Your task to perform on an android device: Open privacy settings Image 0: 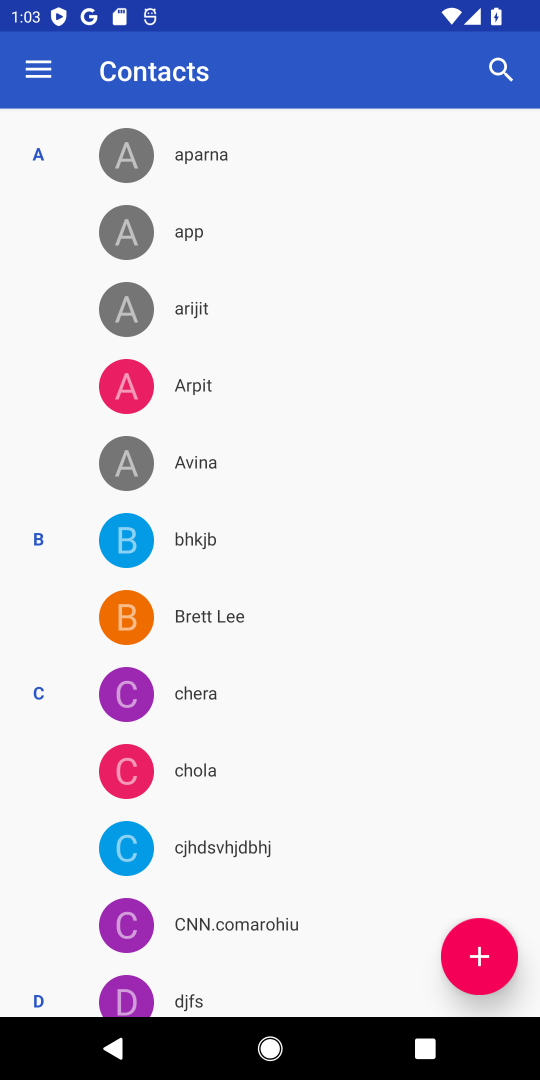
Step 0: press home button
Your task to perform on an android device: Open privacy settings Image 1: 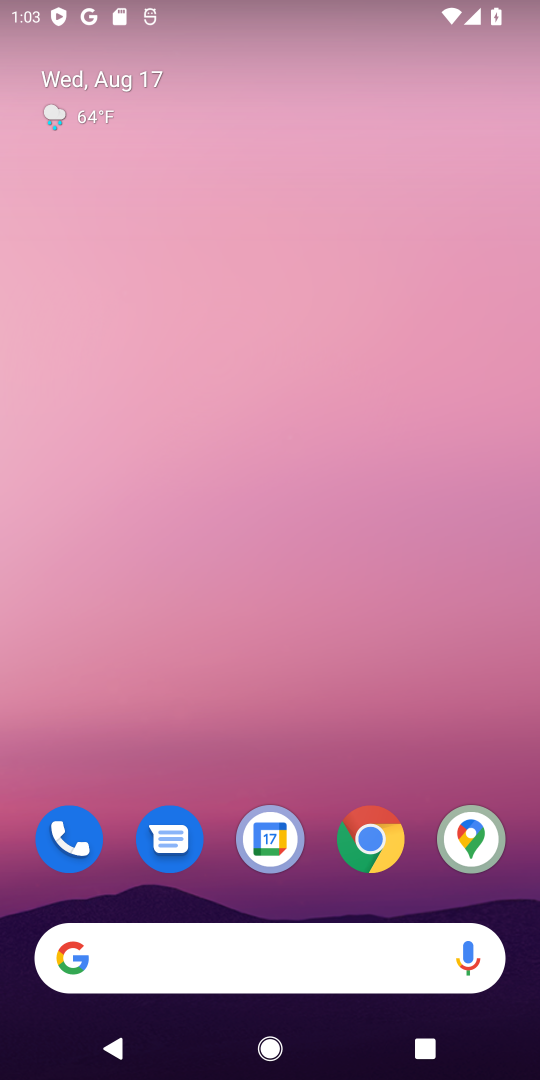
Step 1: drag from (236, 960) to (335, 71)
Your task to perform on an android device: Open privacy settings Image 2: 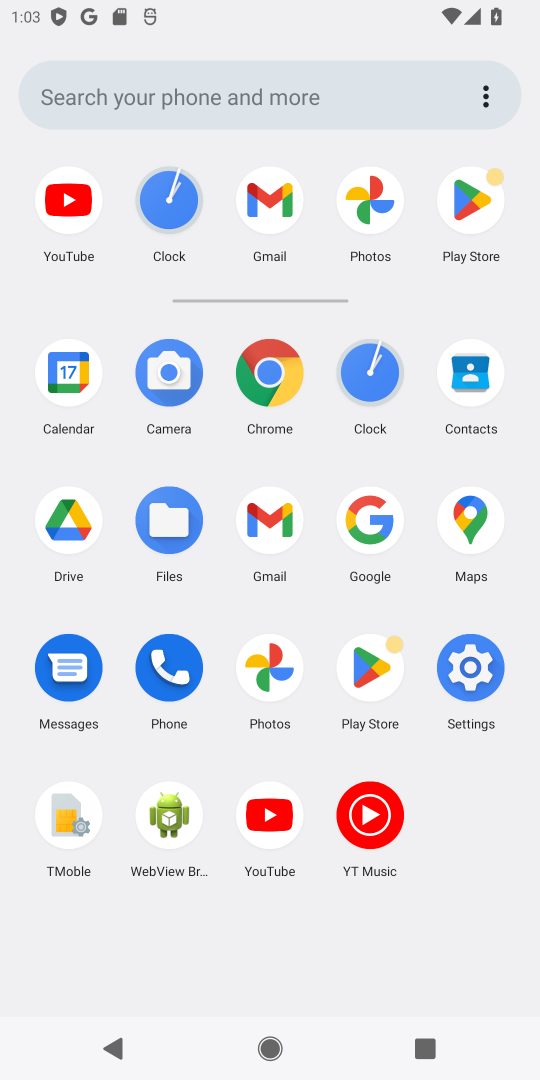
Step 2: click (466, 668)
Your task to perform on an android device: Open privacy settings Image 3: 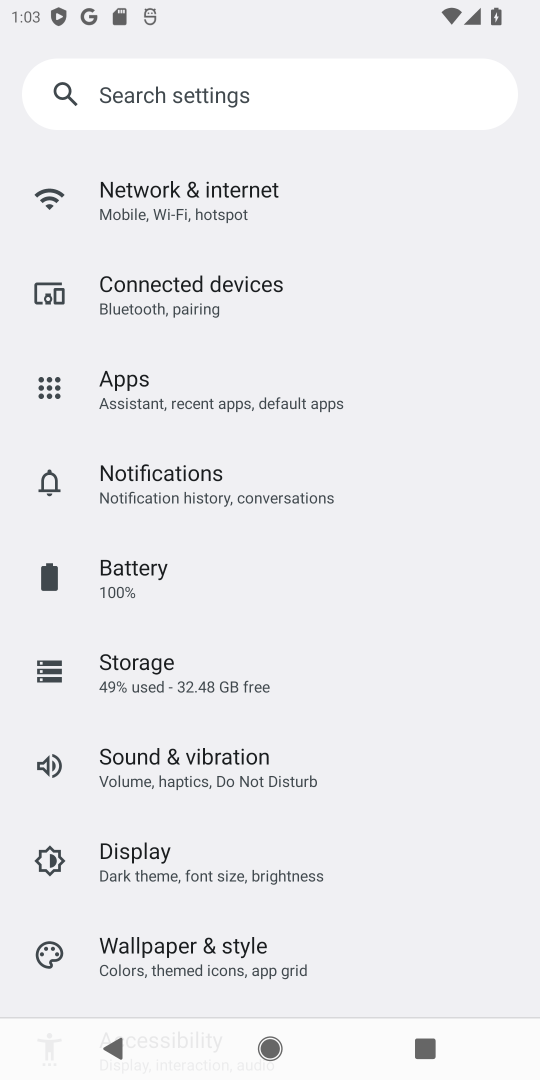
Step 3: drag from (221, 706) to (331, 547)
Your task to perform on an android device: Open privacy settings Image 4: 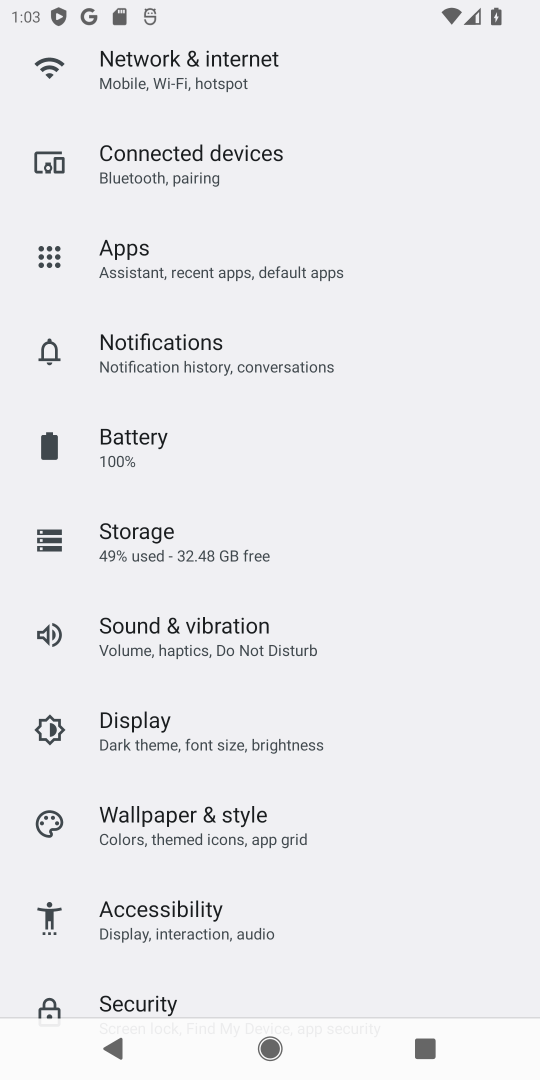
Step 4: drag from (262, 855) to (404, 638)
Your task to perform on an android device: Open privacy settings Image 5: 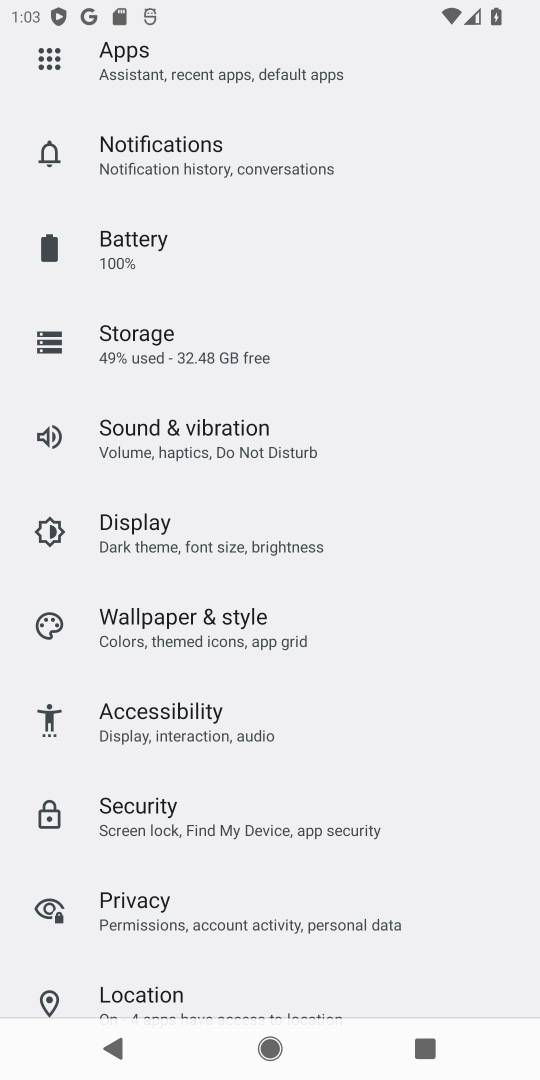
Step 5: click (164, 917)
Your task to perform on an android device: Open privacy settings Image 6: 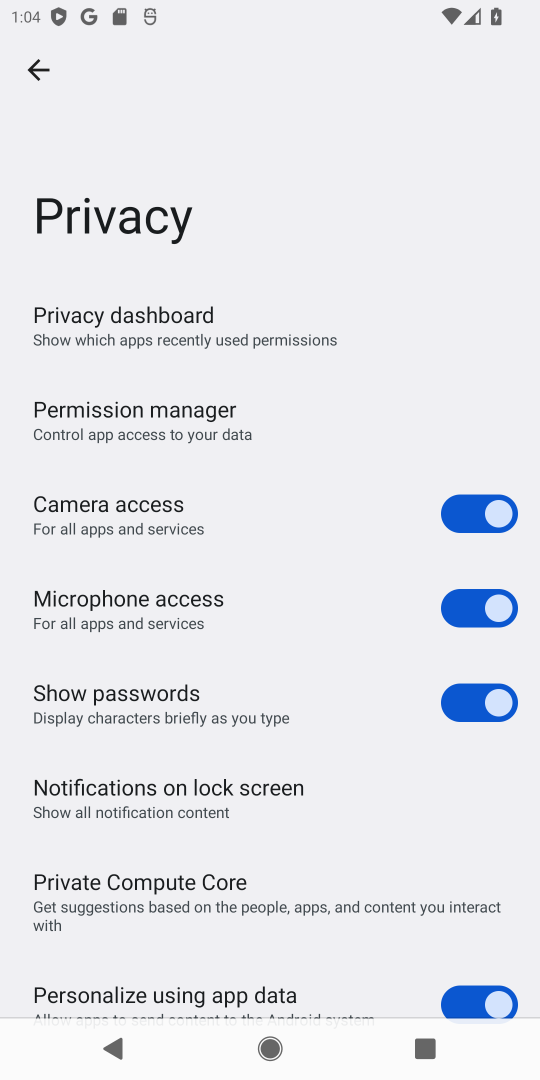
Step 6: task complete